Your task to perform on an android device: Search for razer blackwidow on ebay.com, select the first entry, add it to the cart, then select checkout. Image 0: 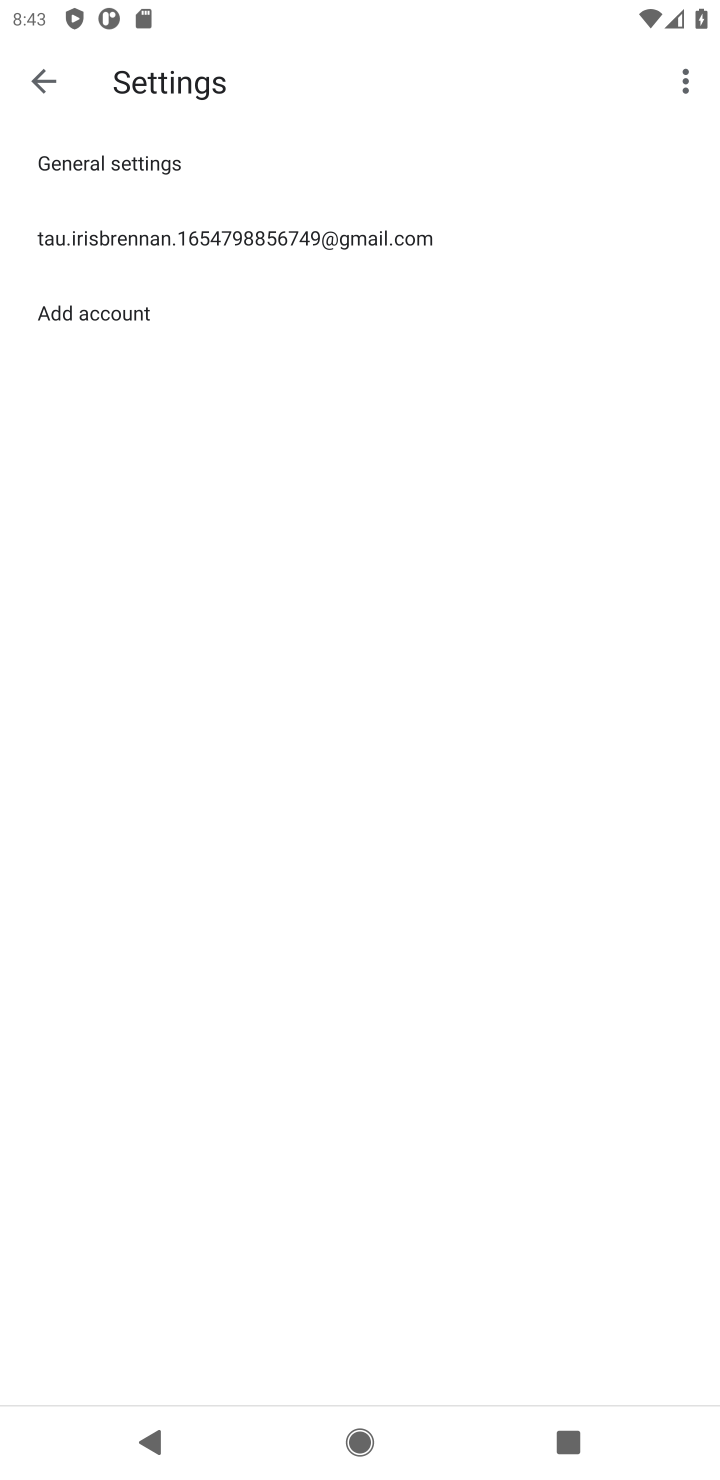
Step 0: press home button
Your task to perform on an android device: Search for razer blackwidow on ebay.com, select the first entry, add it to the cart, then select checkout. Image 1: 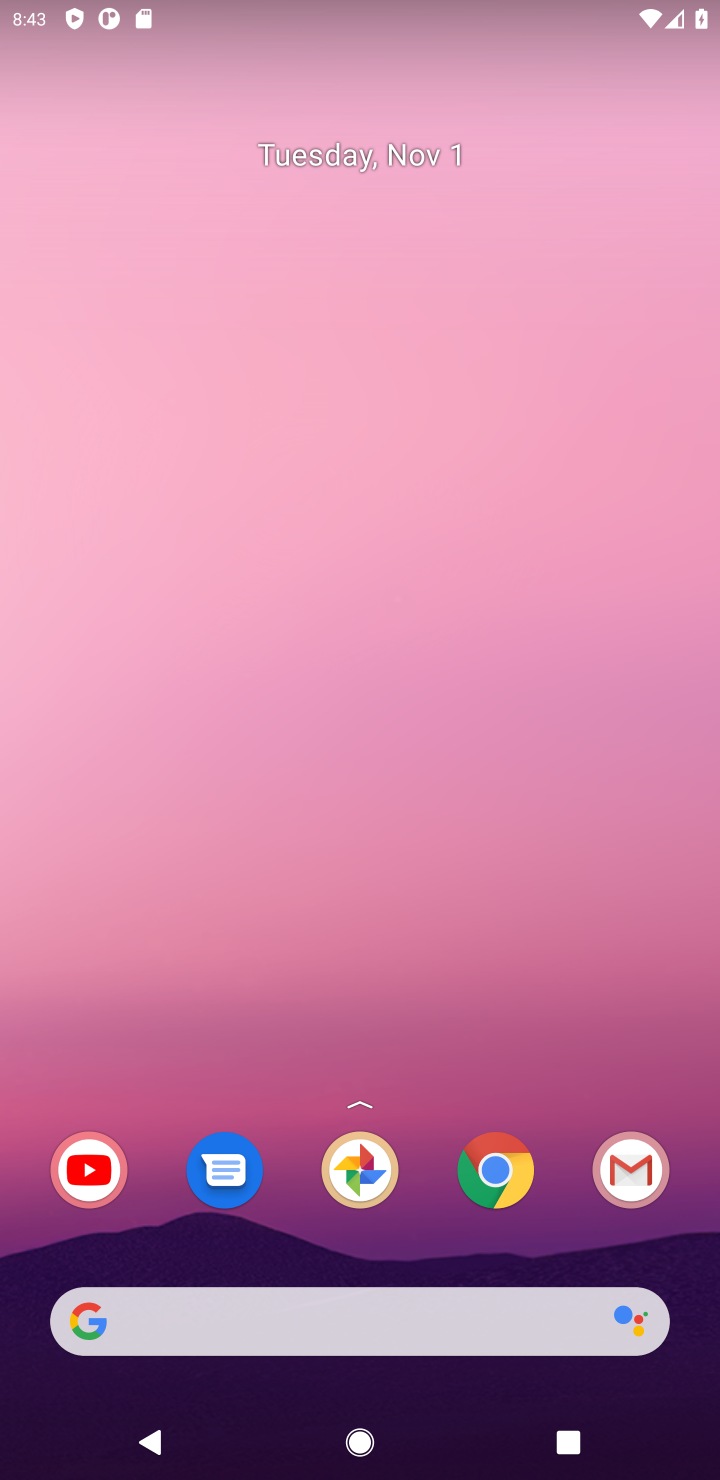
Step 1: click (514, 1185)
Your task to perform on an android device: Search for razer blackwidow on ebay.com, select the first entry, add it to the cart, then select checkout. Image 2: 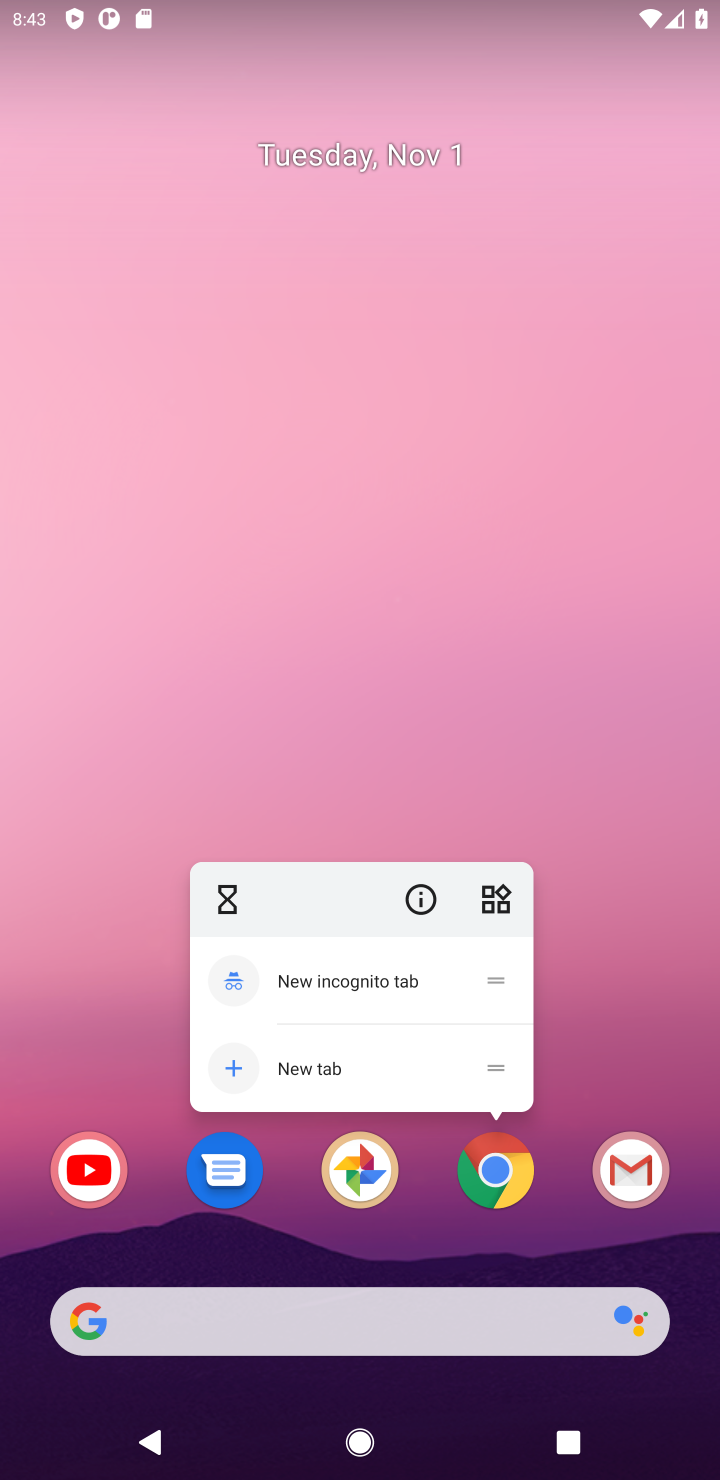
Step 2: click (483, 1185)
Your task to perform on an android device: Search for razer blackwidow on ebay.com, select the first entry, add it to the cart, then select checkout. Image 3: 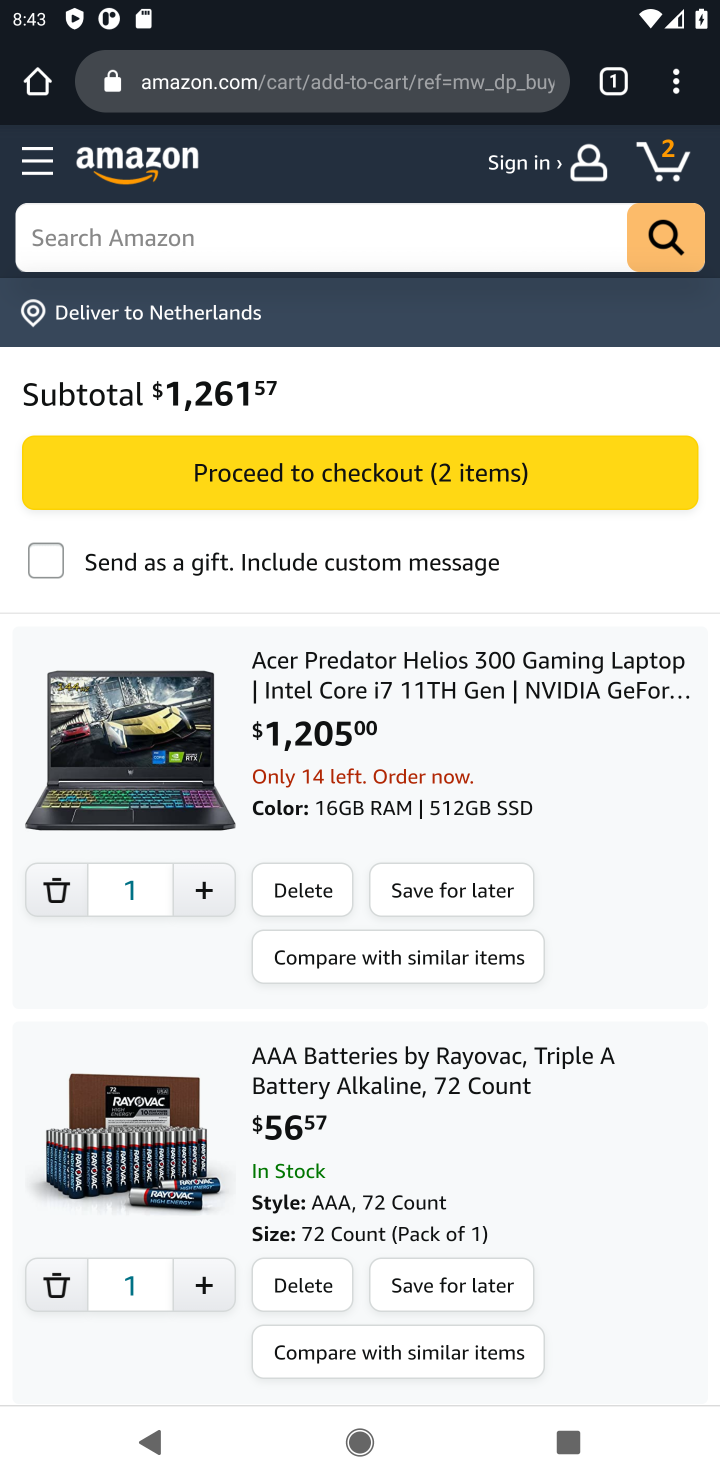
Step 3: click (314, 106)
Your task to perform on an android device: Search for razer blackwidow on ebay.com, select the first entry, add it to the cart, then select checkout. Image 4: 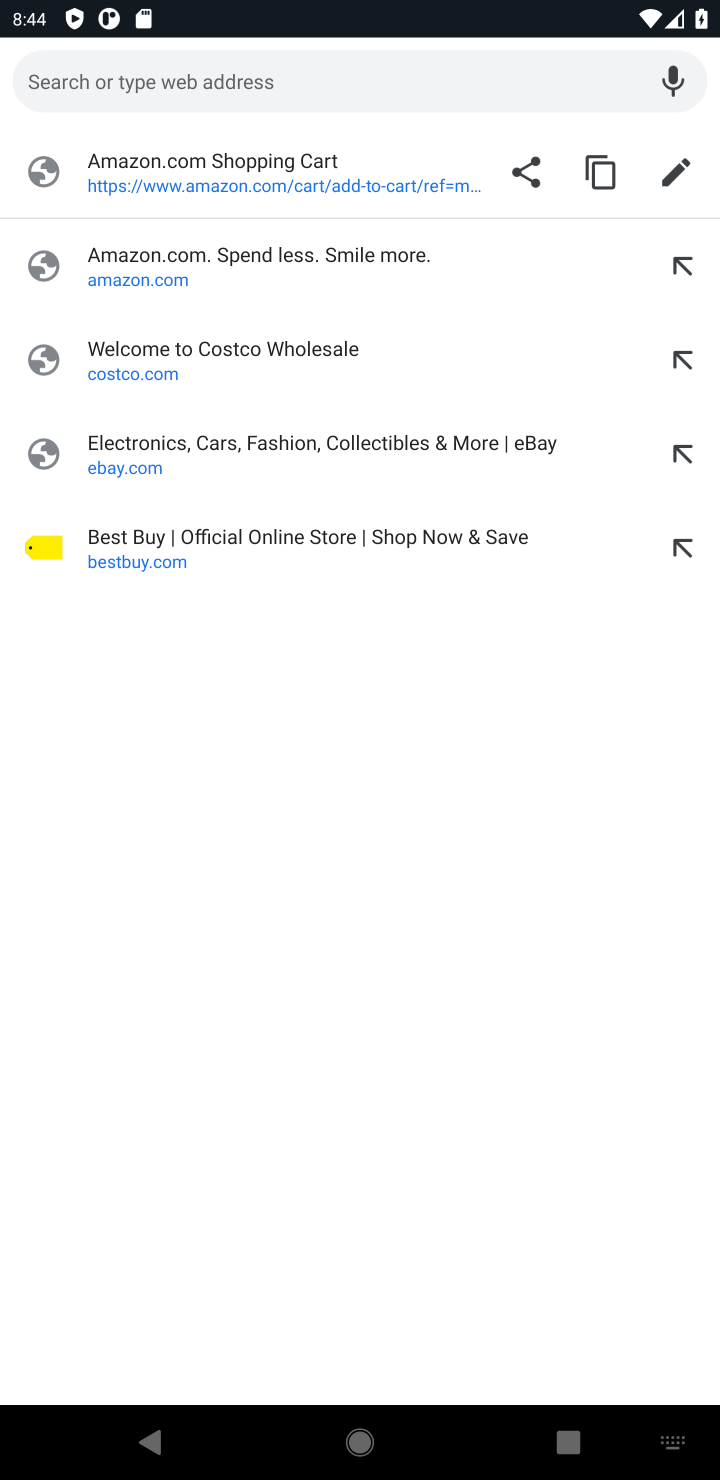
Step 4: type "ebay.com"
Your task to perform on an android device: Search for razer blackwidow on ebay.com, select the first entry, add it to the cart, then select checkout. Image 5: 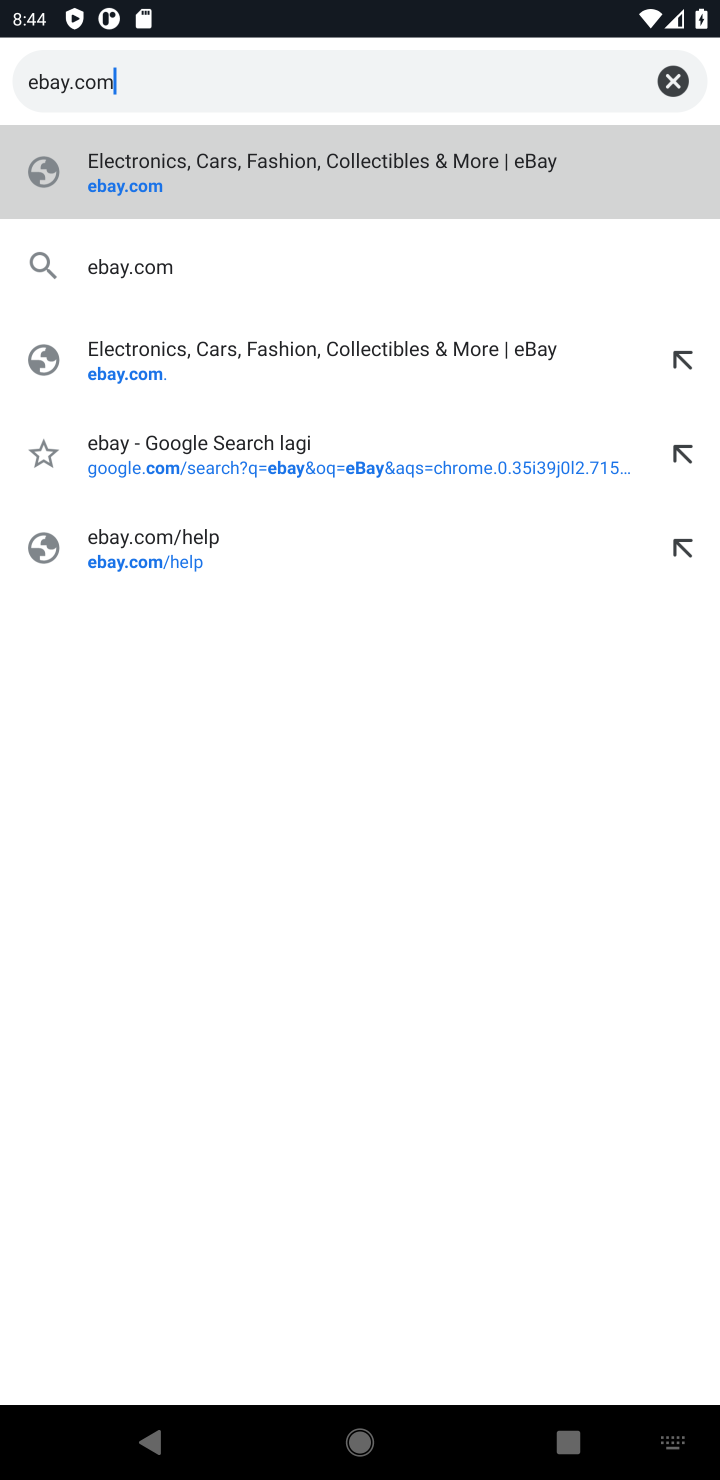
Step 5: press enter
Your task to perform on an android device: Search for razer blackwidow on ebay.com, select the first entry, add it to the cart, then select checkout. Image 6: 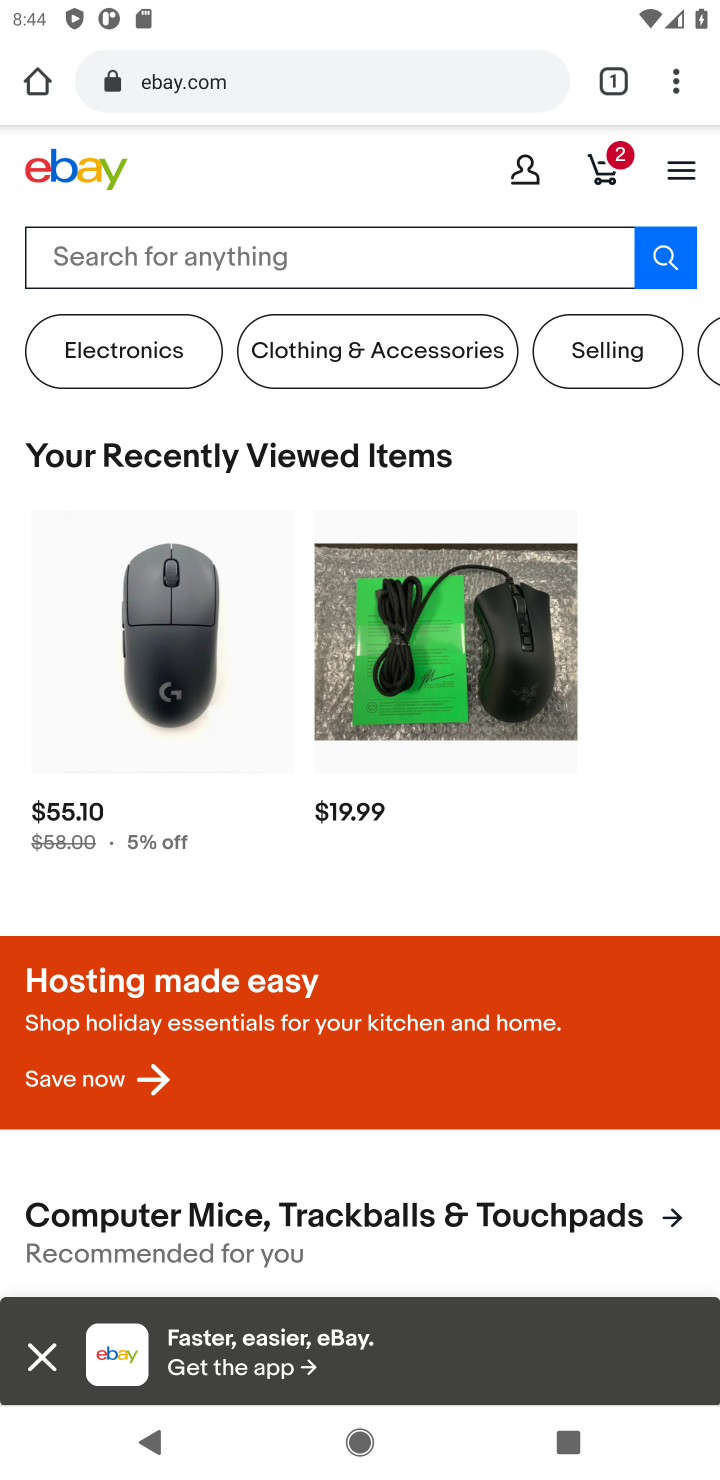
Step 6: click (340, 272)
Your task to perform on an android device: Search for razer blackwidow on ebay.com, select the first entry, add it to the cart, then select checkout. Image 7: 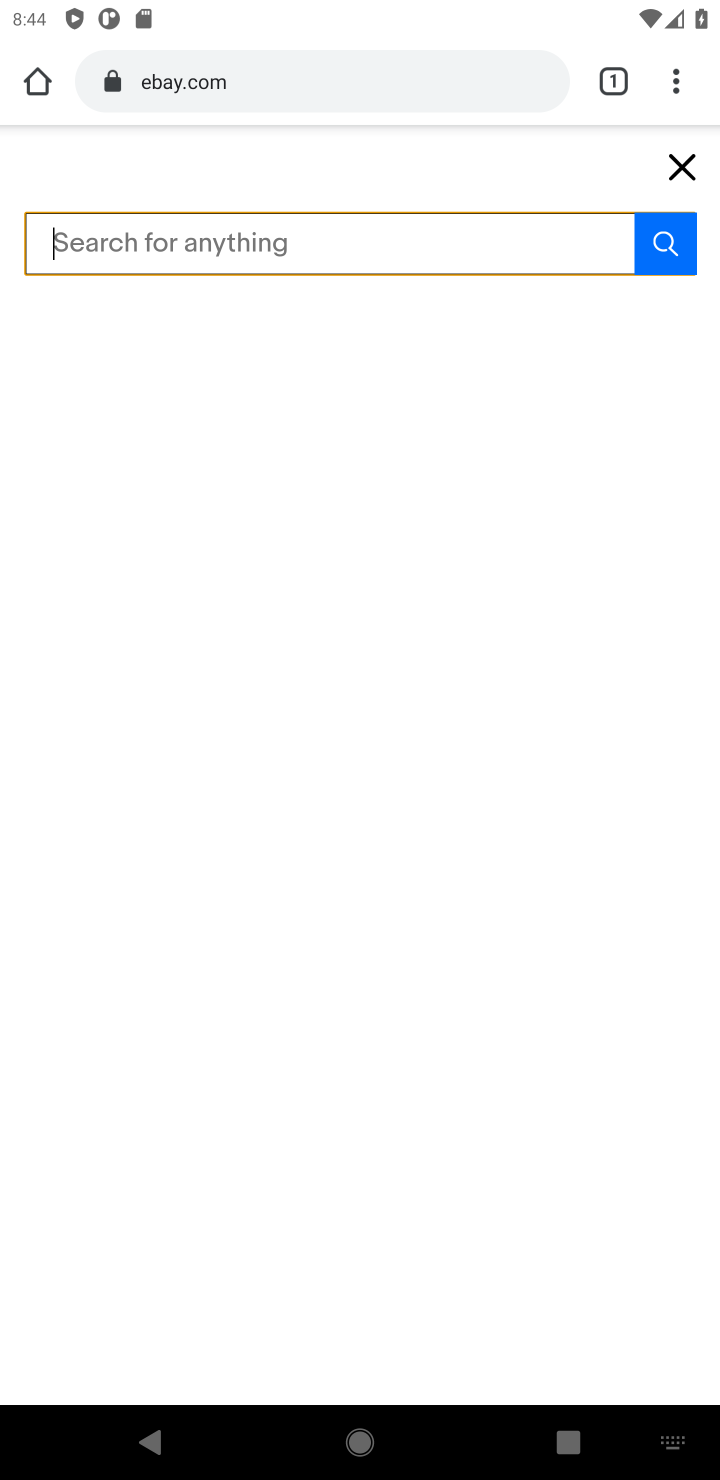
Step 7: type "razer blackwidow "
Your task to perform on an android device: Search for razer blackwidow on ebay.com, select the first entry, add it to the cart, then select checkout. Image 8: 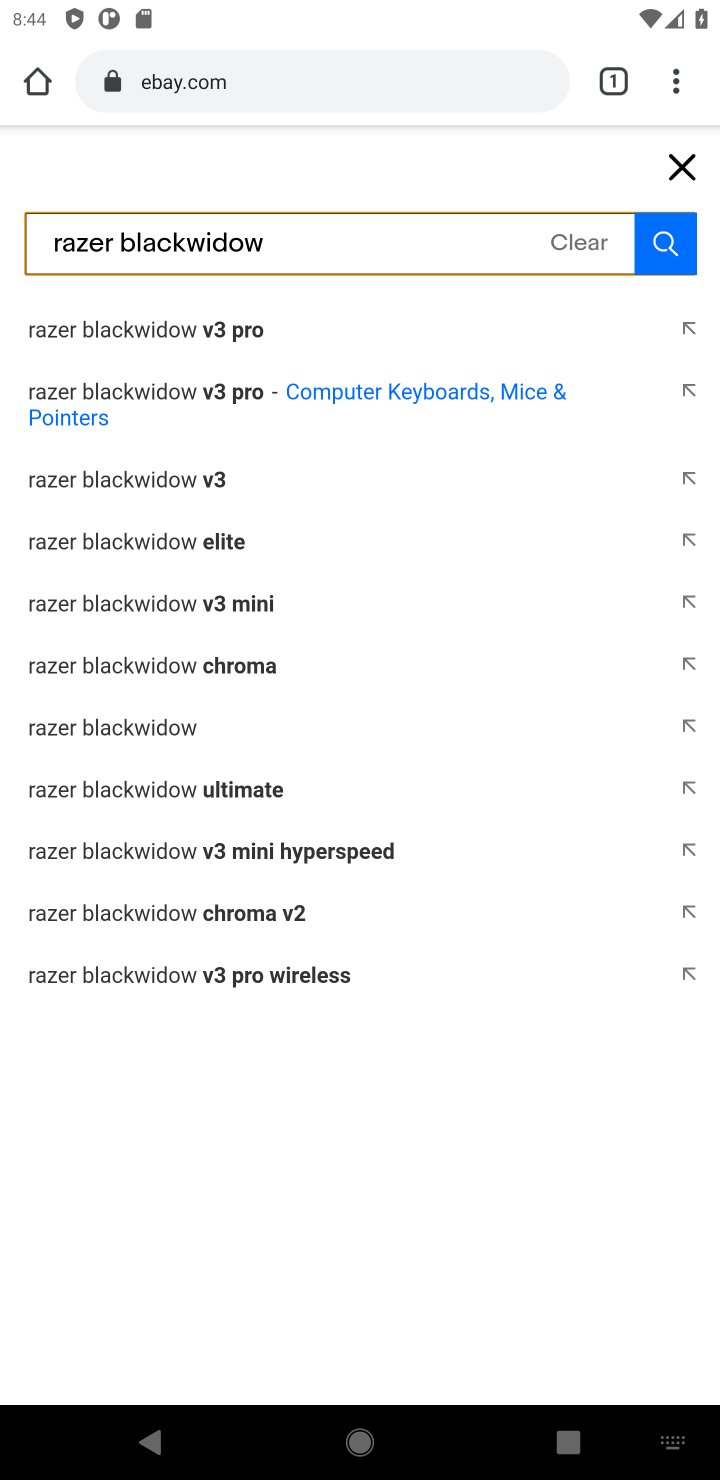
Step 8: press enter
Your task to perform on an android device: Search for razer blackwidow on ebay.com, select the first entry, add it to the cart, then select checkout. Image 9: 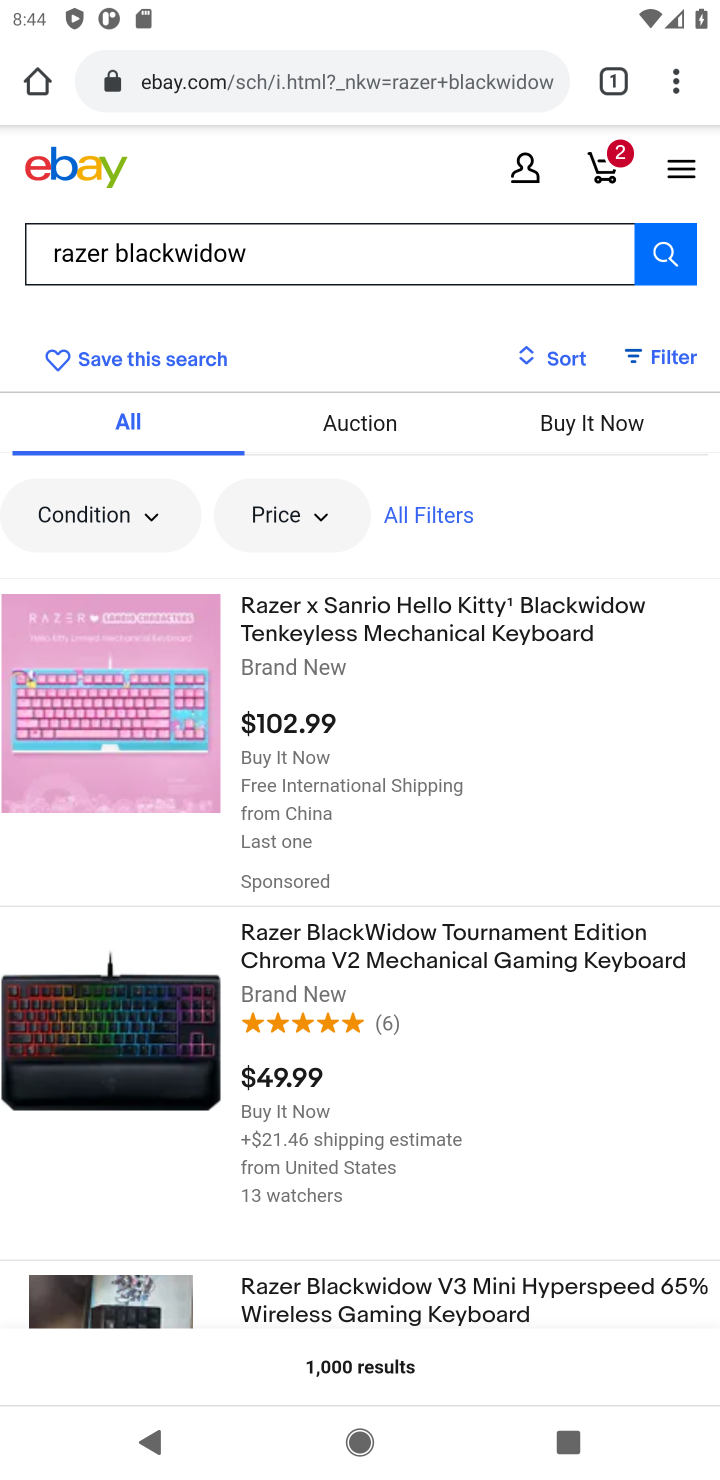
Step 9: click (502, 635)
Your task to perform on an android device: Search for razer blackwidow on ebay.com, select the first entry, add it to the cart, then select checkout. Image 10: 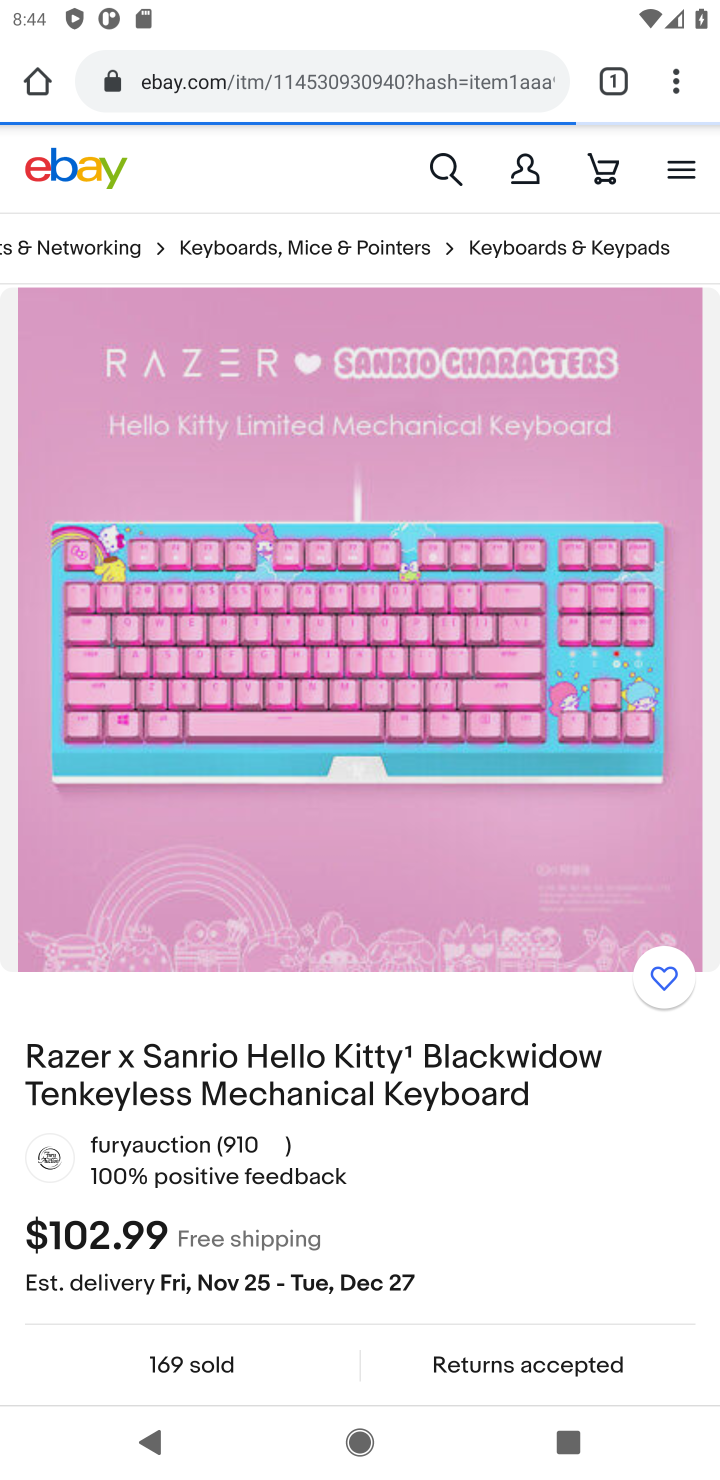
Step 10: drag from (545, 1107) to (466, 343)
Your task to perform on an android device: Search for razer blackwidow on ebay.com, select the first entry, add it to the cart, then select checkout. Image 11: 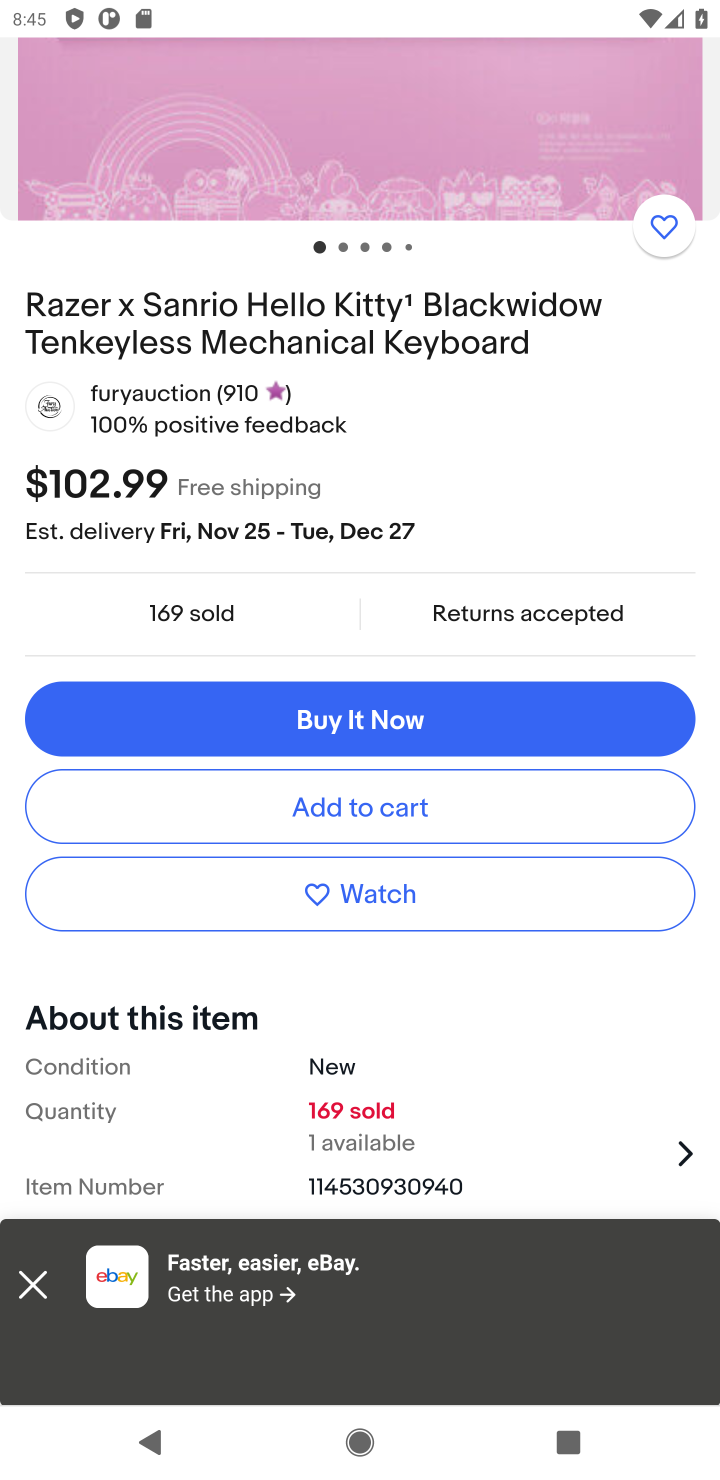
Step 11: click (496, 819)
Your task to perform on an android device: Search for razer blackwidow on ebay.com, select the first entry, add it to the cart, then select checkout. Image 12: 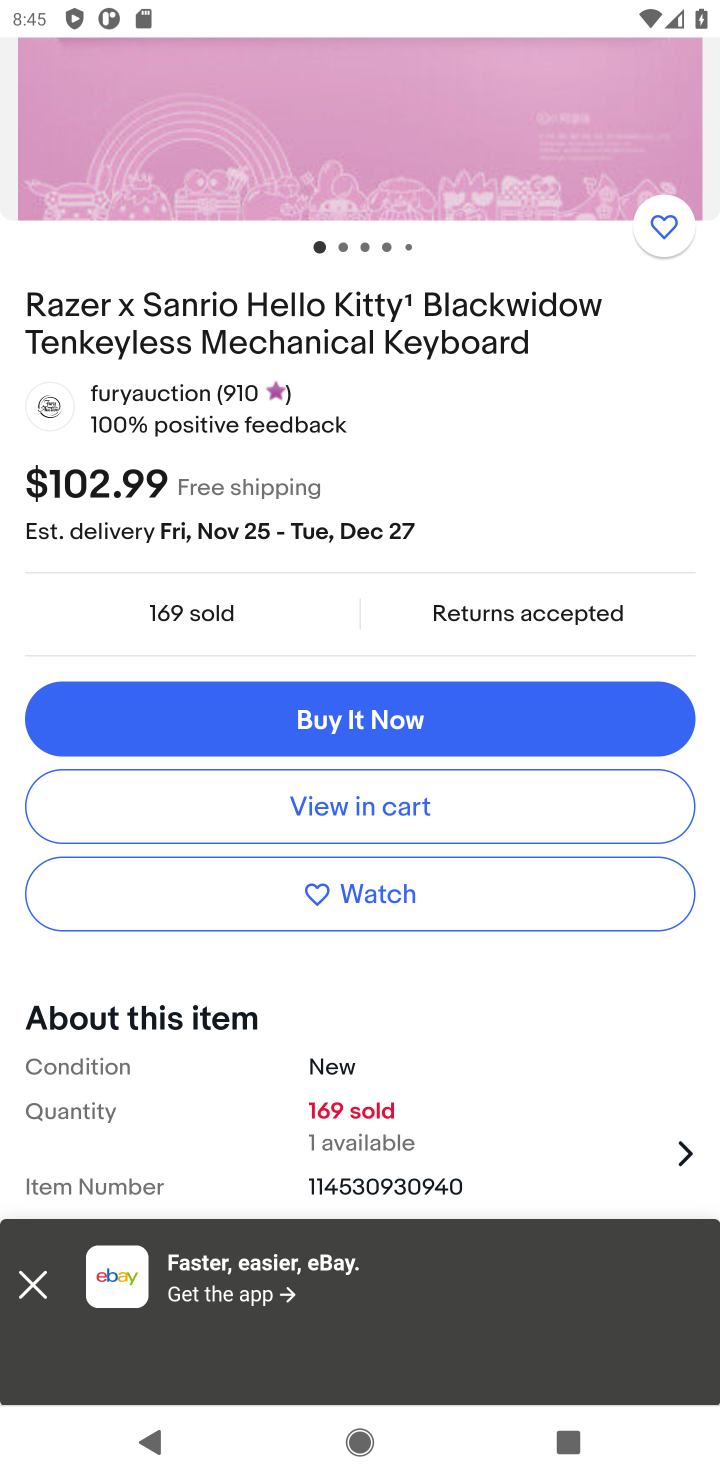
Step 12: click (496, 817)
Your task to perform on an android device: Search for razer blackwidow on ebay.com, select the first entry, add it to the cart, then select checkout. Image 13: 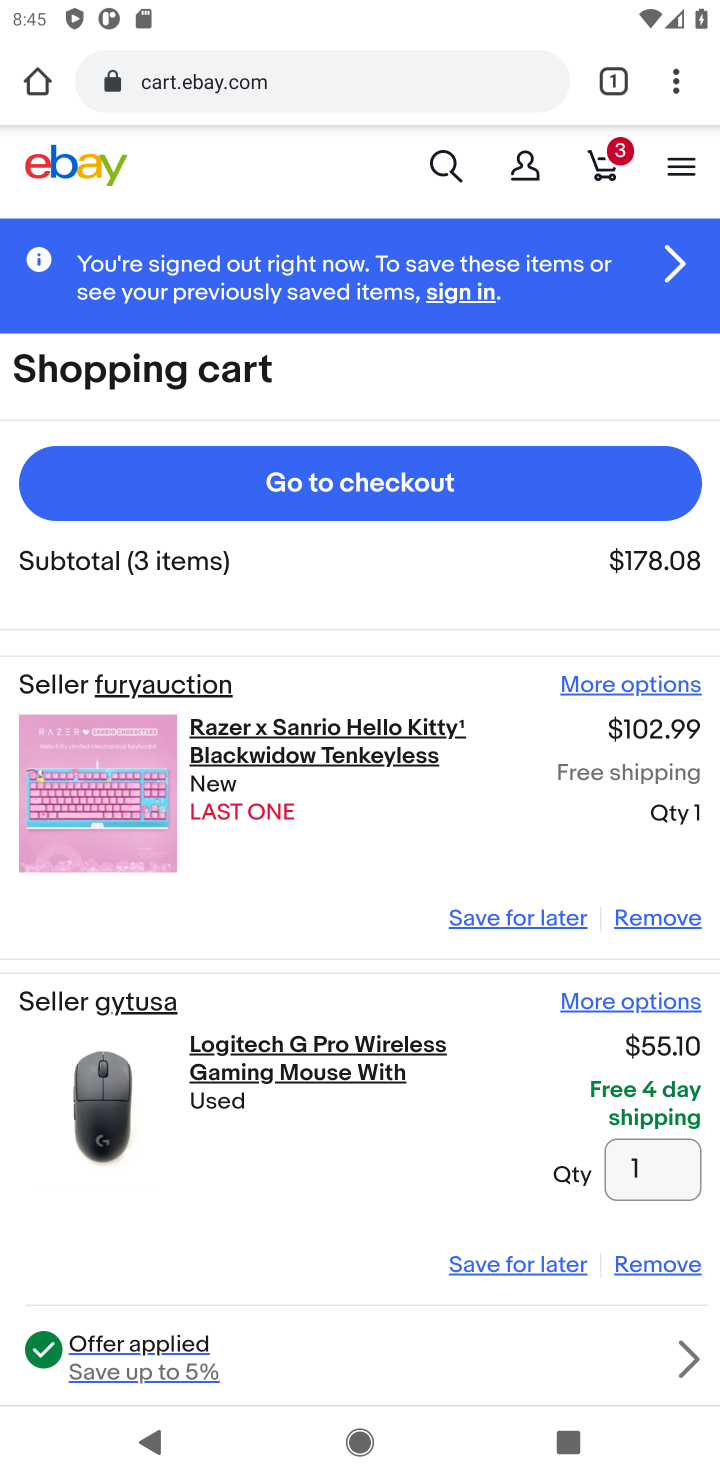
Step 13: click (471, 488)
Your task to perform on an android device: Search for razer blackwidow on ebay.com, select the first entry, add it to the cart, then select checkout. Image 14: 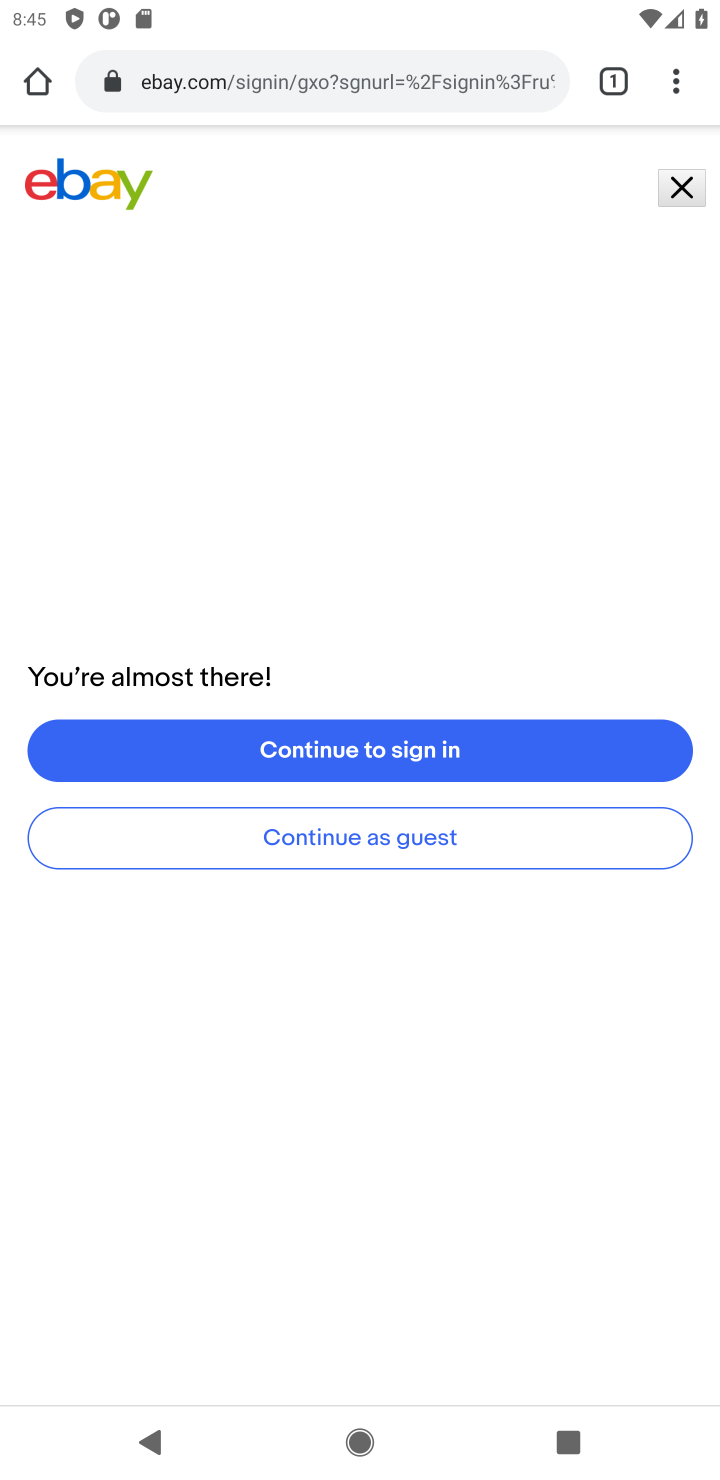
Step 14: click (507, 832)
Your task to perform on an android device: Search for razer blackwidow on ebay.com, select the first entry, add it to the cart, then select checkout. Image 15: 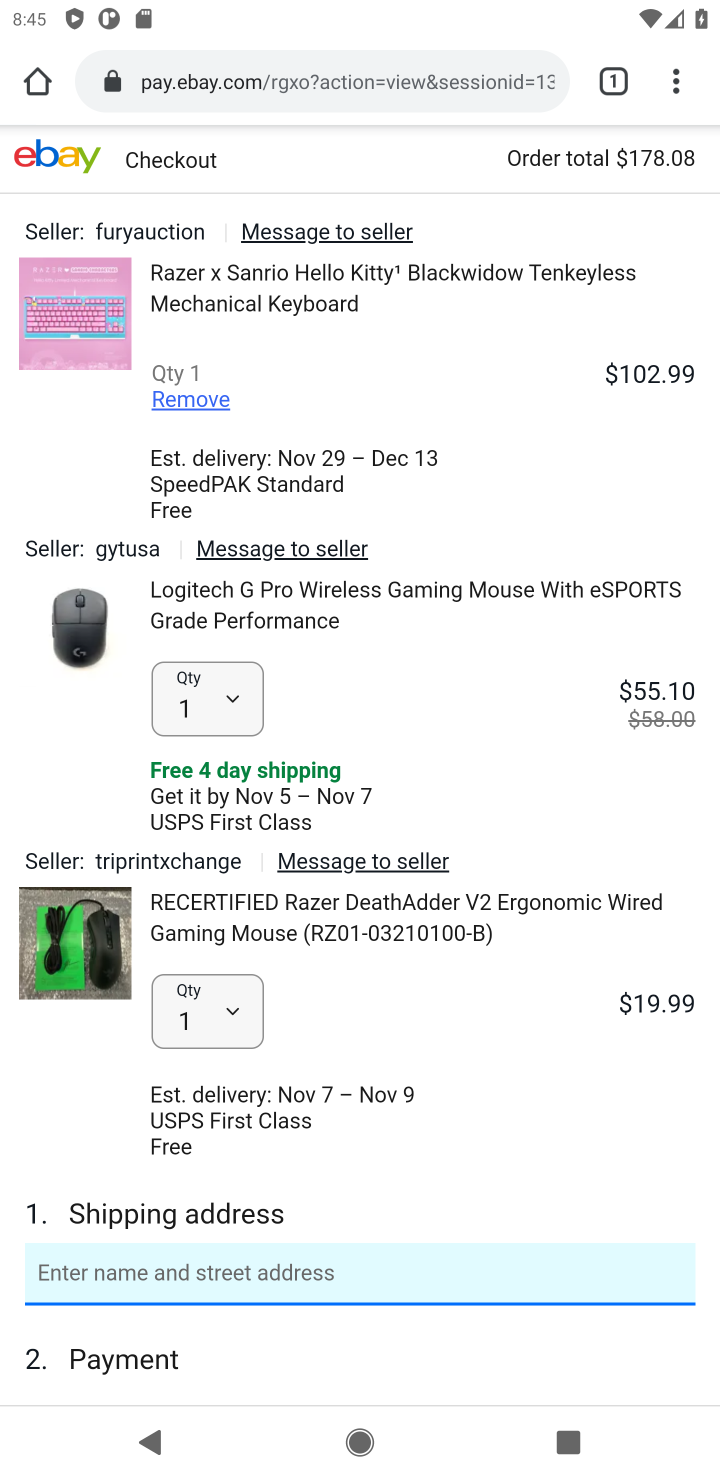
Step 15: task complete